Your task to perform on an android device: Go to Yahoo.com Image 0: 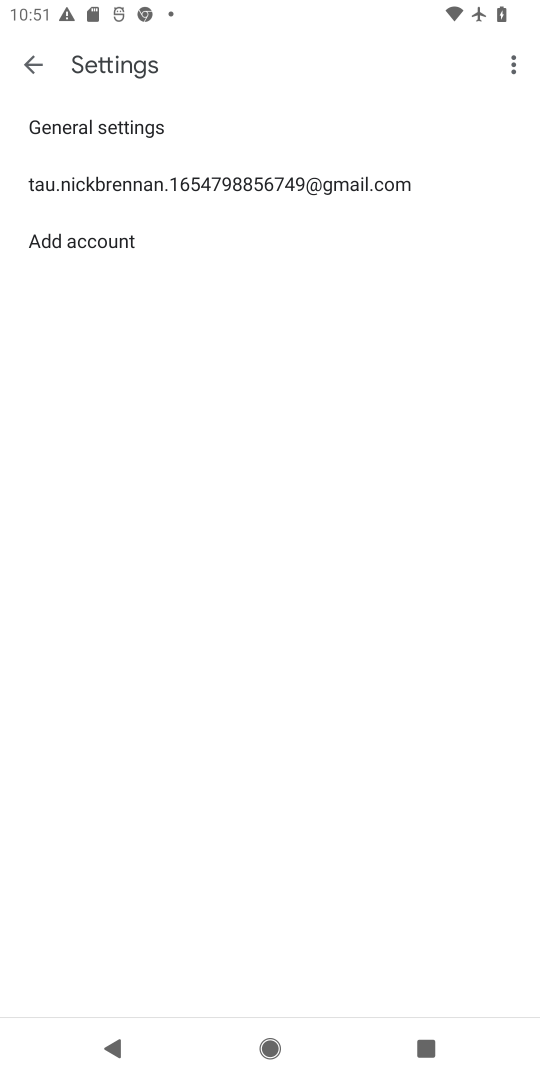
Step 0: press home button
Your task to perform on an android device: Go to Yahoo.com Image 1: 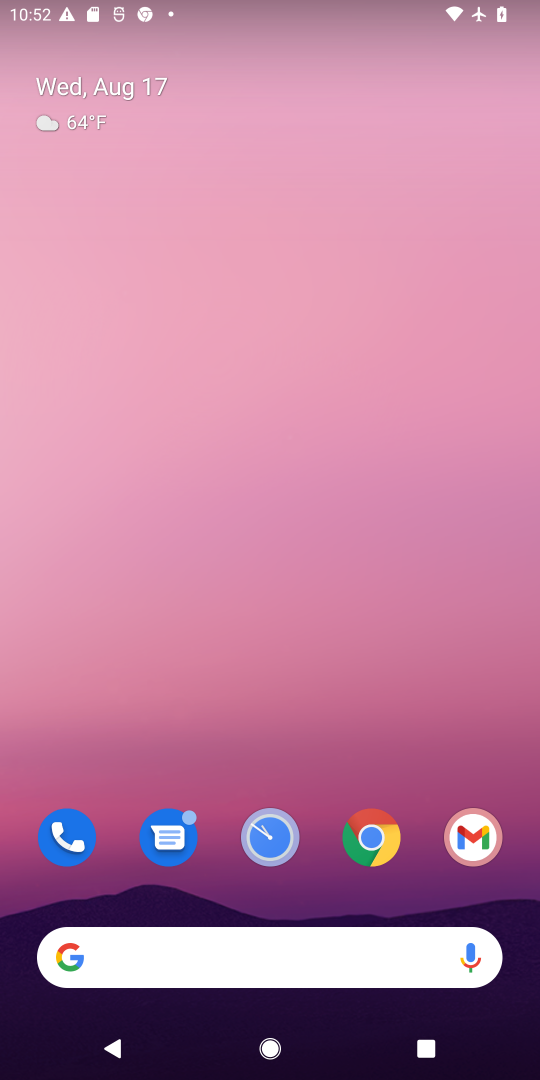
Step 1: click (371, 838)
Your task to perform on an android device: Go to Yahoo.com Image 2: 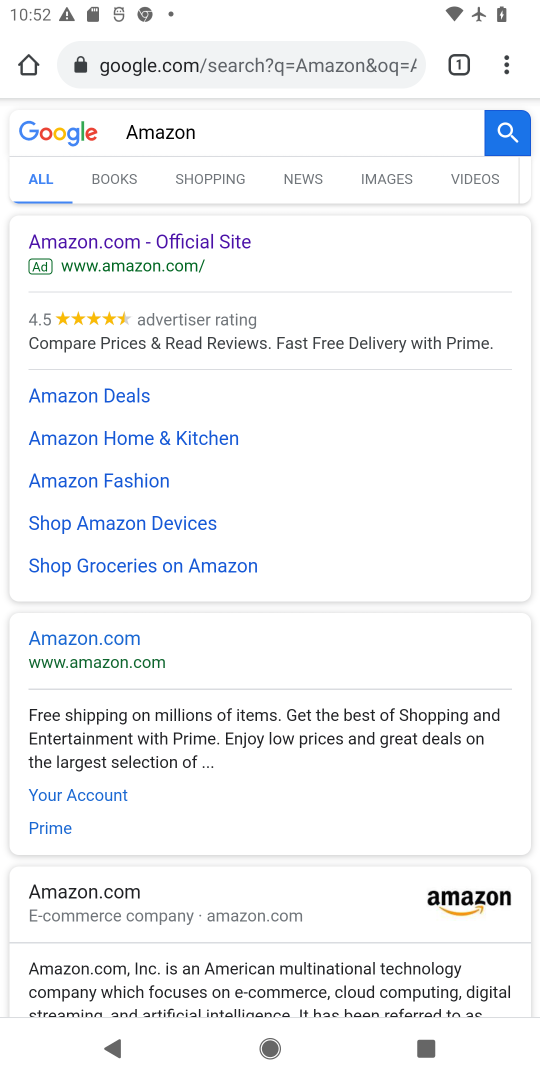
Step 2: click (369, 69)
Your task to perform on an android device: Go to Yahoo.com Image 3: 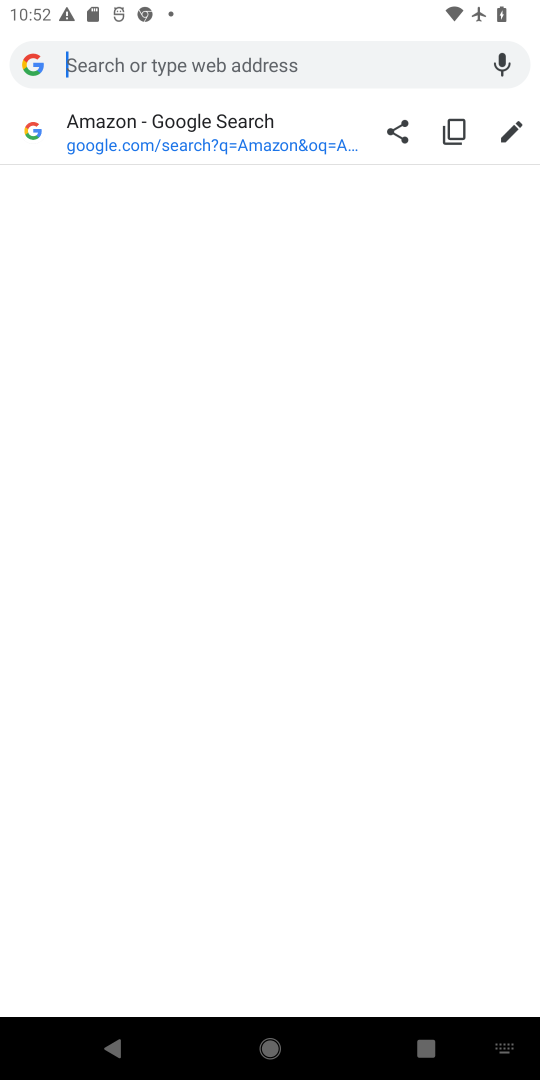
Step 3: type "Yahoo.com"
Your task to perform on an android device: Go to Yahoo.com Image 4: 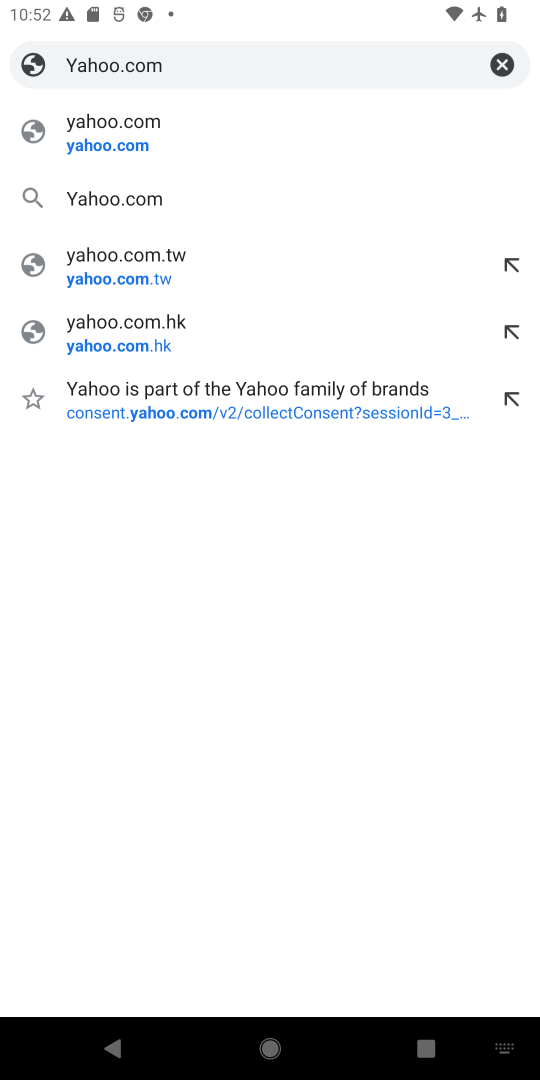
Step 4: click (98, 193)
Your task to perform on an android device: Go to Yahoo.com Image 5: 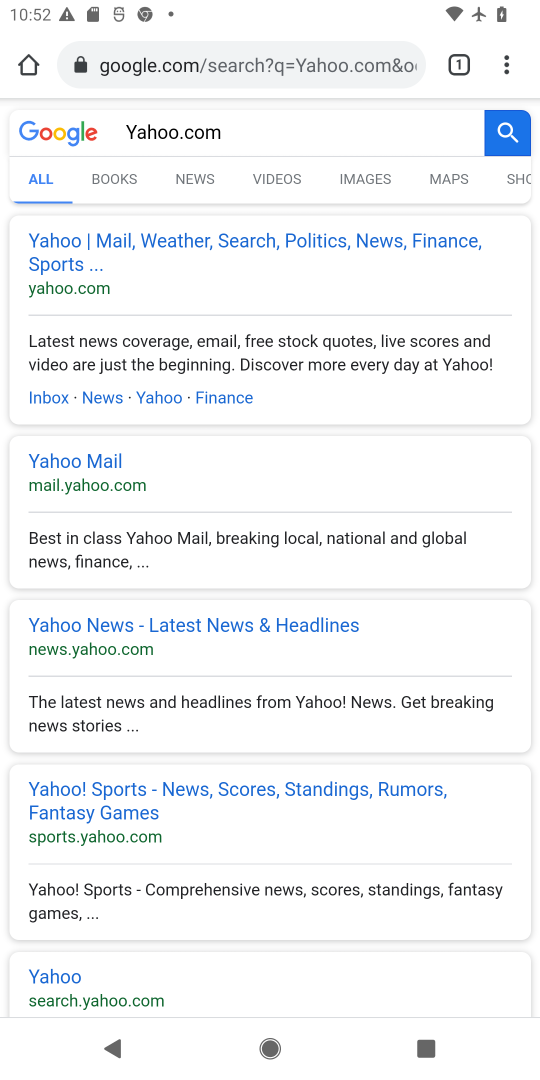
Step 5: click (134, 240)
Your task to perform on an android device: Go to Yahoo.com Image 6: 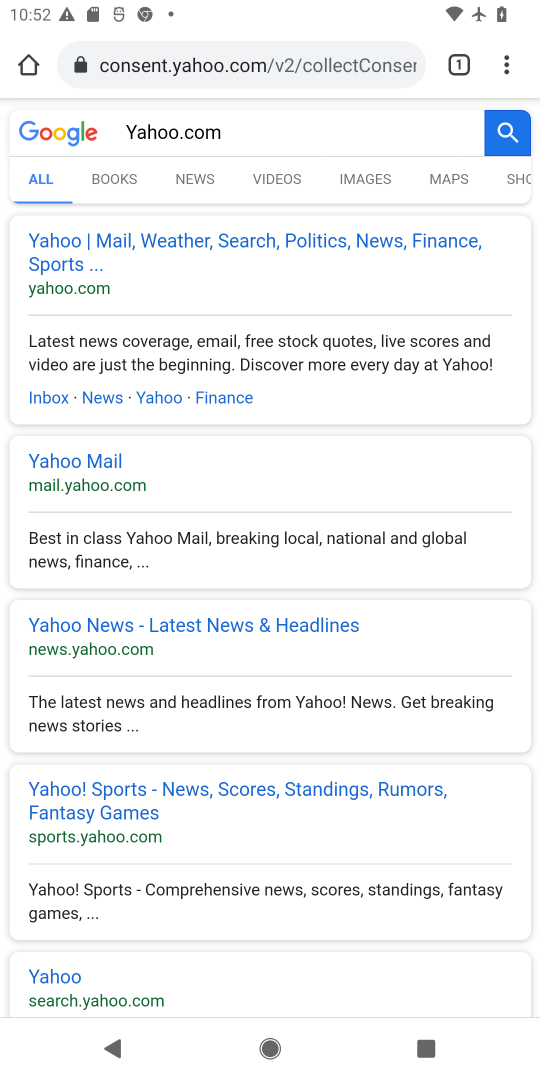
Step 6: click (271, 246)
Your task to perform on an android device: Go to Yahoo.com Image 7: 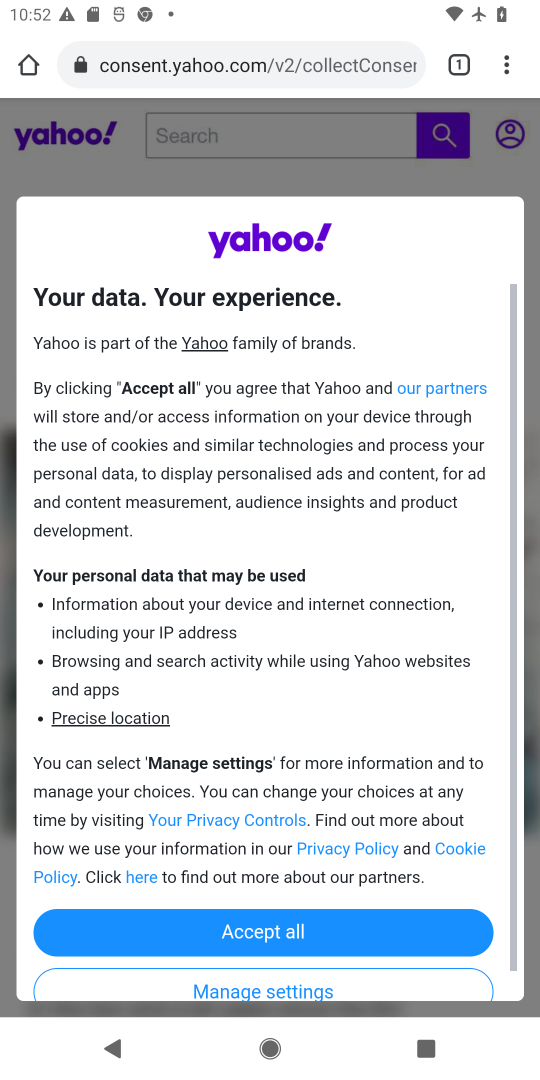
Step 7: click (324, 936)
Your task to perform on an android device: Go to Yahoo.com Image 8: 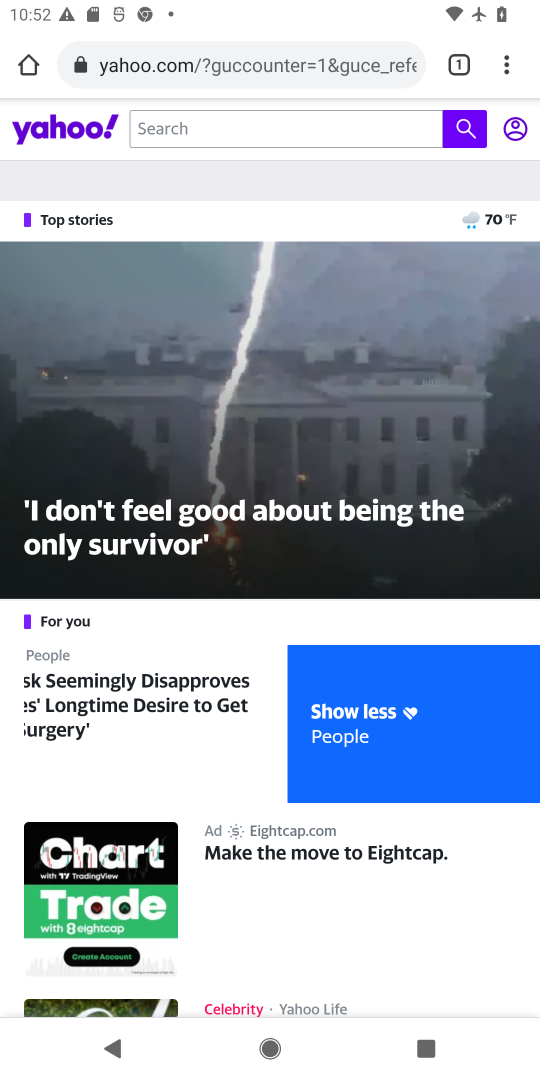
Step 8: task complete